Your task to perform on an android device: Open Chrome and go to settings Image 0: 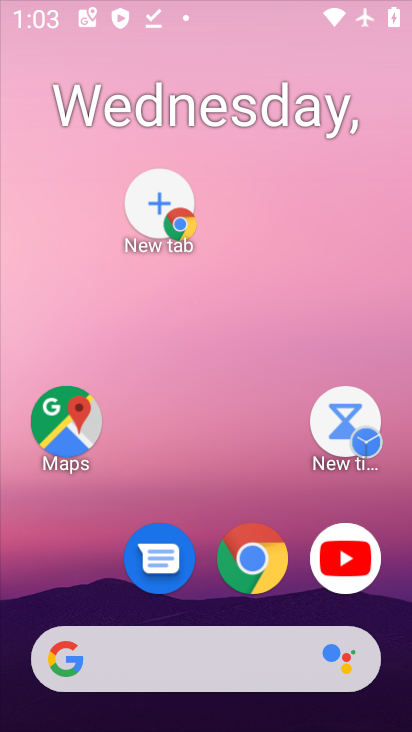
Step 0: drag from (245, 498) to (174, 64)
Your task to perform on an android device: Open Chrome and go to settings Image 1: 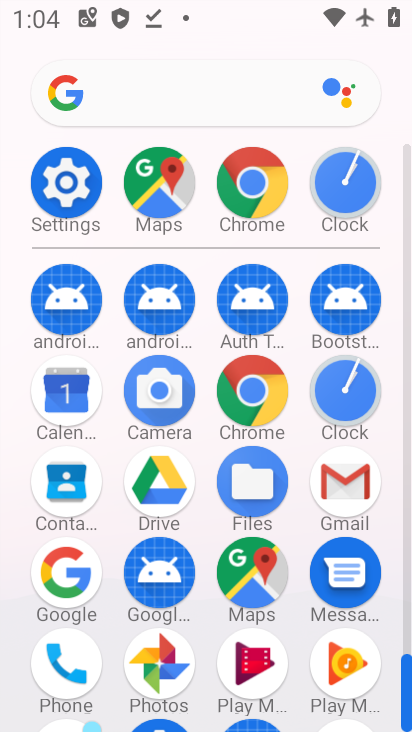
Step 1: click (243, 178)
Your task to perform on an android device: Open Chrome and go to settings Image 2: 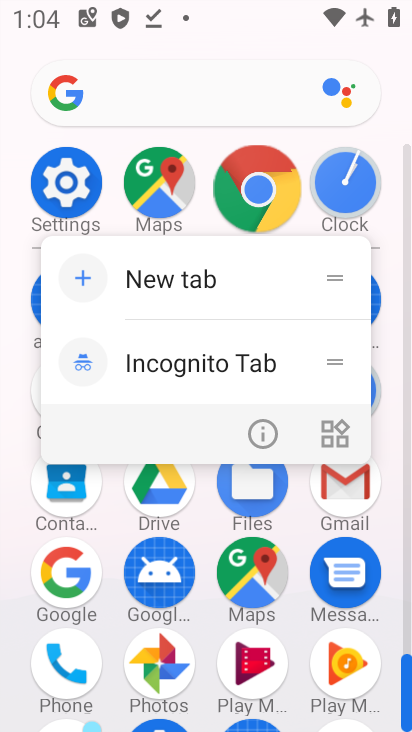
Step 2: click (248, 184)
Your task to perform on an android device: Open Chrome and go to settings Image 3: 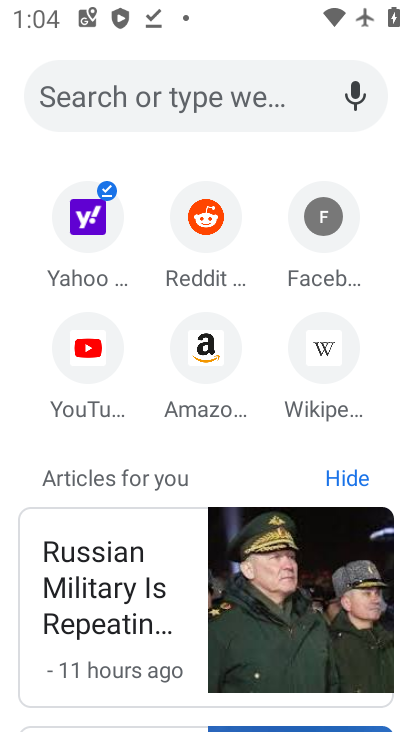
Step 3: drag from (264, 153) to (260, 690)
Your task to perform on an android device: Open Chrome and go to settings Image 4: 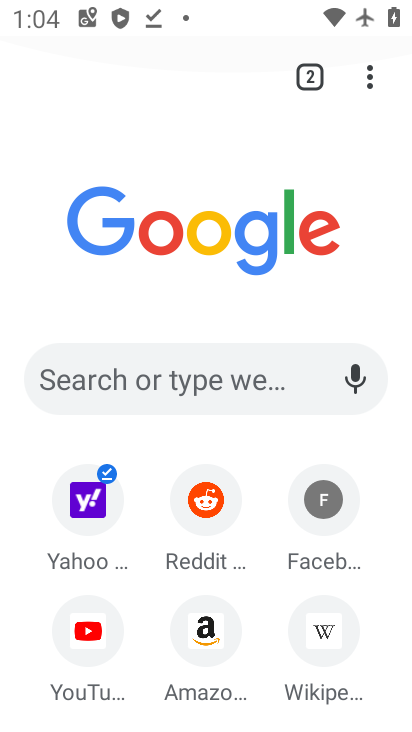
Step 4: drag from (193, 544) to (205, 633)
Your task to perform on an android device: Open Chrome and go to settings Image 5: 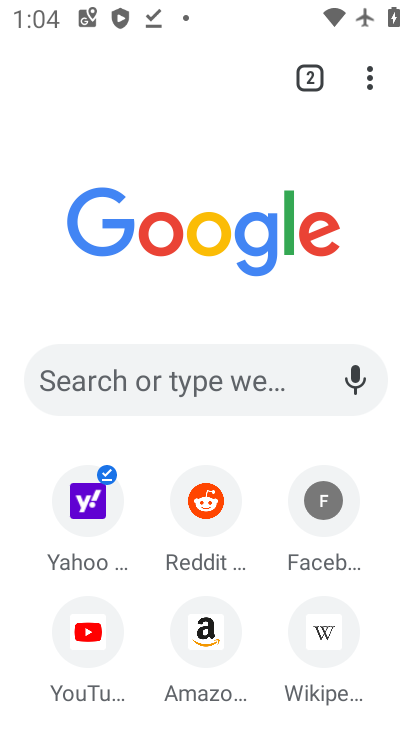
Step 5: drag from (365, 82) to (86, 648)
Your task to perform on an android device: Open Chrome and go to settings Image 6: 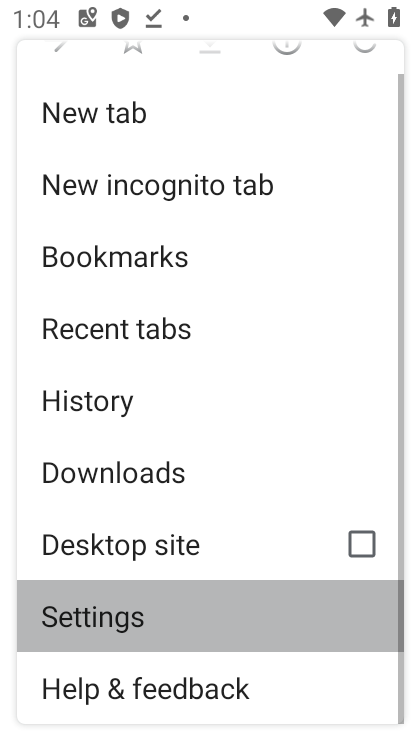
Step 6: click (88, 649)
Your task to perform on an android device: Open Chrome and go to settings Image 7: 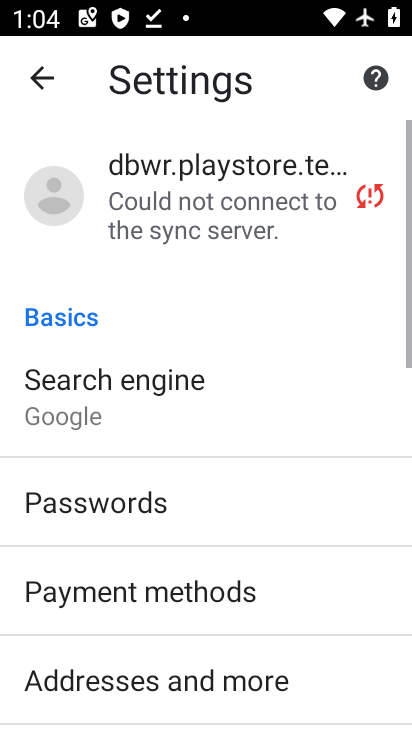
Step 7: click (101, 613)
Your task to perform on an android device: Open Chrome and go to settings Image 8: 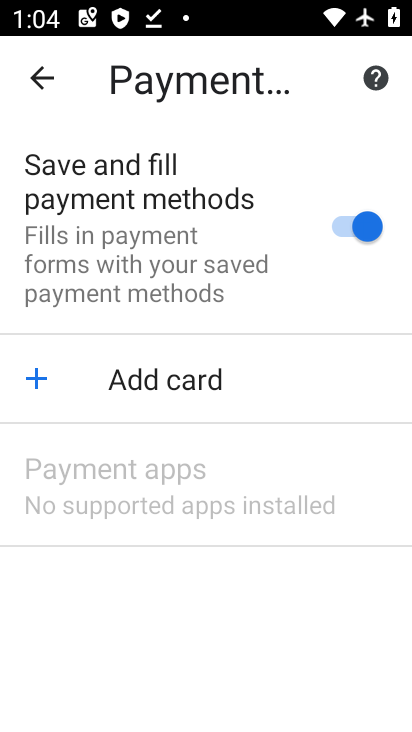
Step 8: click (43, 69)
Your task to perform on an android device: Open Chrome and go to settings Image 9: 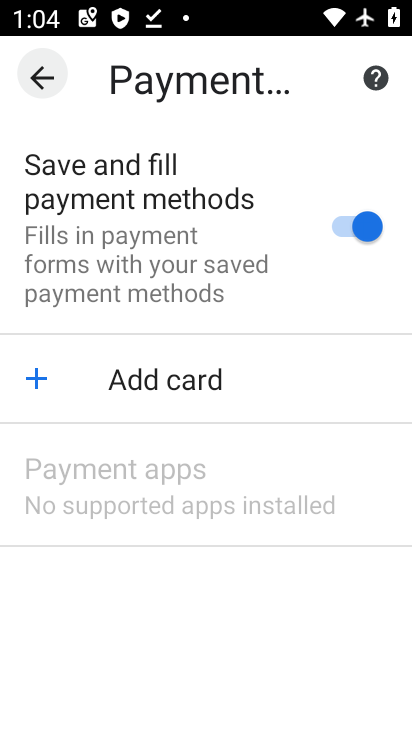
Step 9: click (44, 70)
Your task to perform on an android device: Open Chrome and go to settings Image 10: 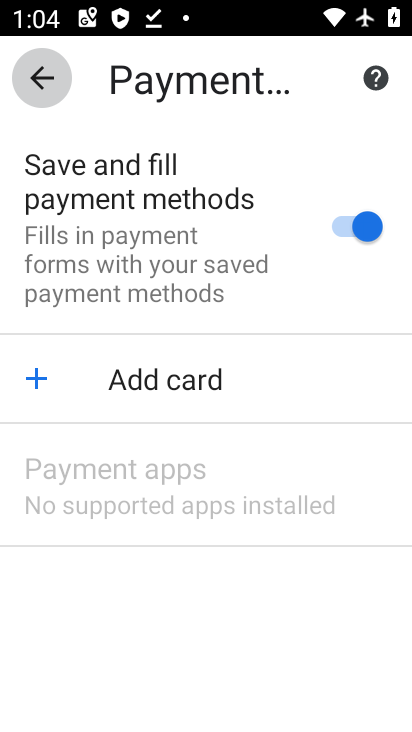
Step 10: click (44, 70)
Your task to perform on an android device: Open Chrome and go to settings Image 11: 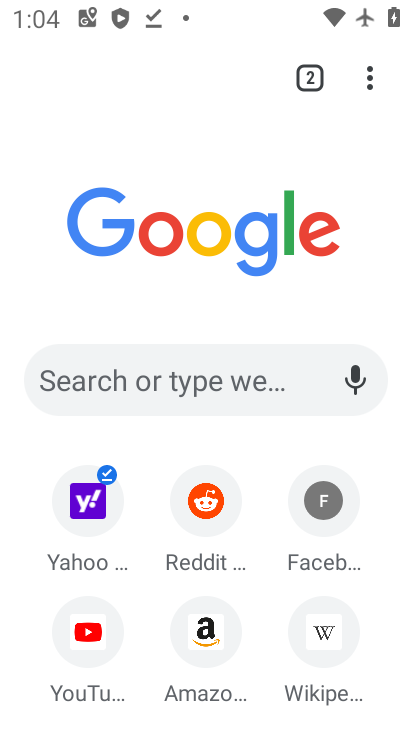
Step 11: task complete